Your task to perform on an android device: turn off priority inbox in the gmail app Image 0: 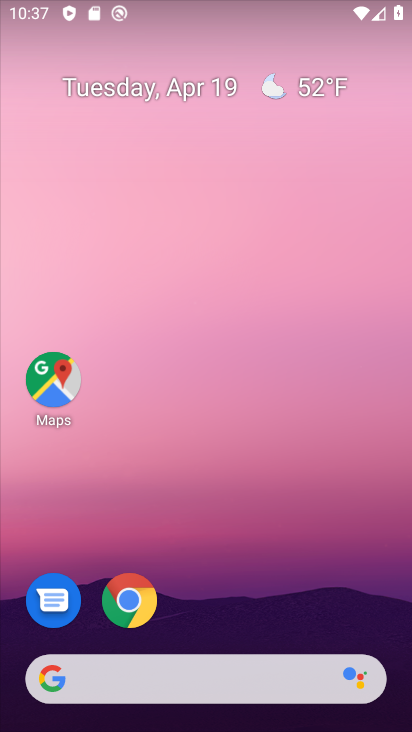
Step 0: click (145, 7)
Your task to perform on an android device: turn off priority inbox in the gmail app Image 1: 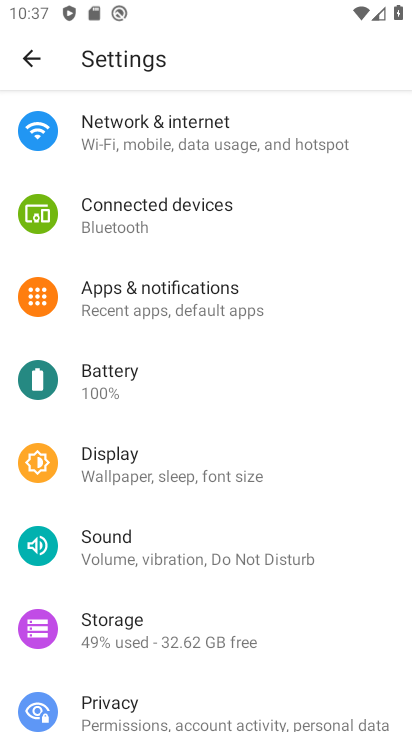
Step 1: press home button
Your task to perform on an android device: turn off priority inbox in the gmail app Image 2: 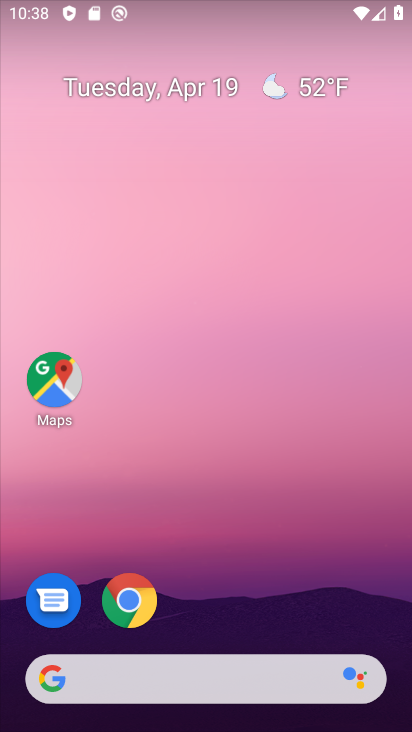
Step 2: drag from (224, 645) to (238, 18)
Your task to perform on an android device: turn off priority inbox in the gmail app Image 3: 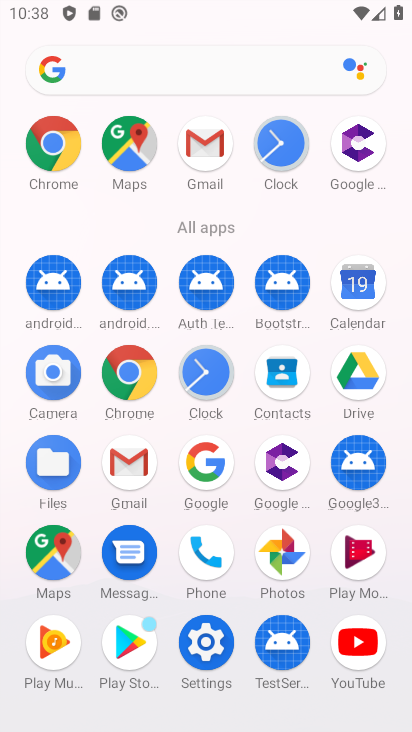
Step 3: click (131, 485)
Your task to perform on an android device: turn off priority inbox in the gmail app Image 4: 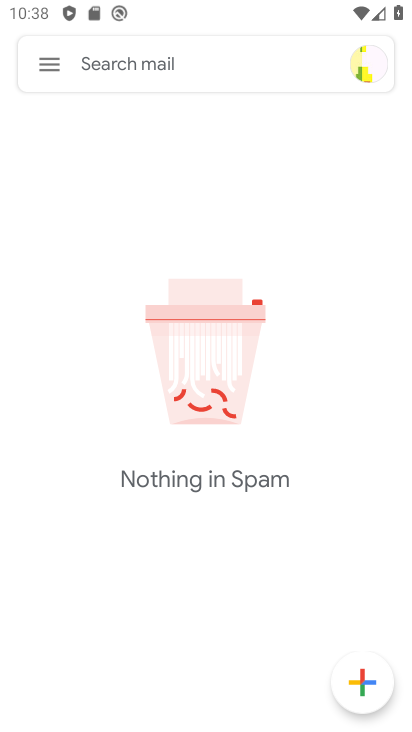
Step 4: click (40, 59)
Your task to perform on an android device: turn off priority inbox in the gmail app Image 5: 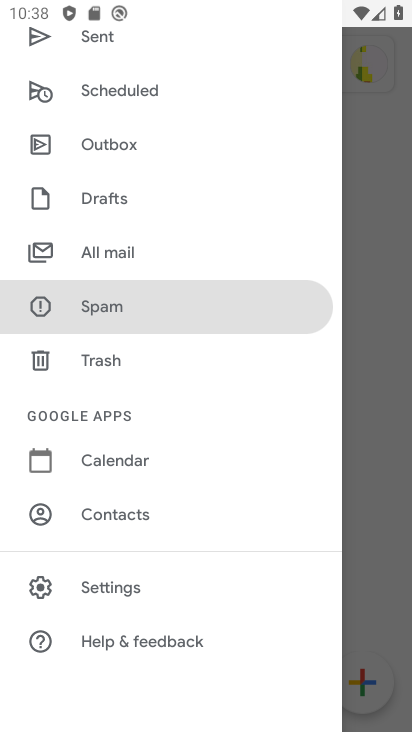
Step 5: click (70, 596)
Your task to perform on an android device: turn off priority inbox in the gmail app Image 6: 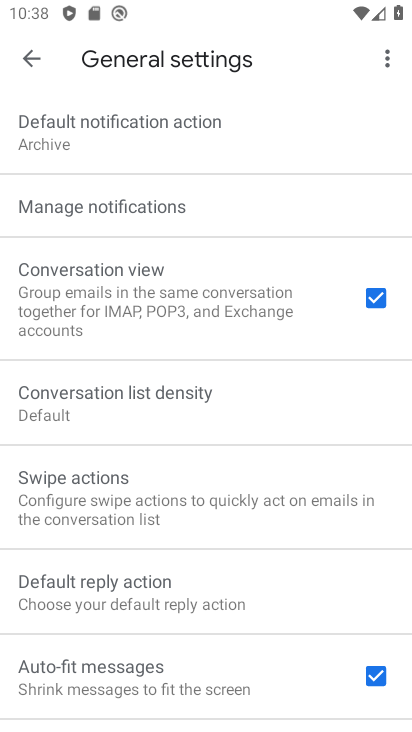
Step 6: click (40, 60)
Your task to perform on an android device: turn off priority inbox in the gmail app Image 7: 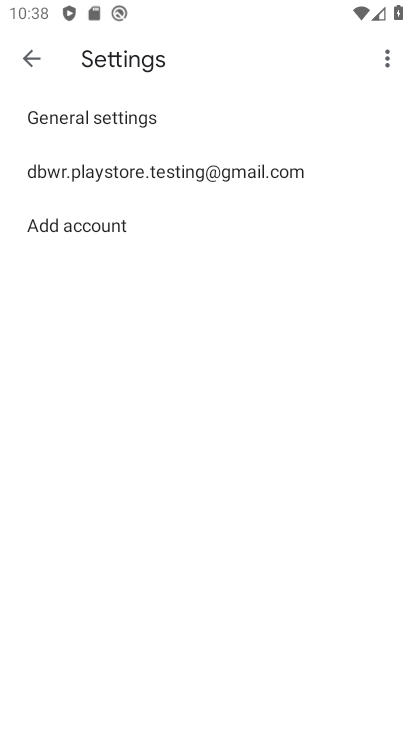
Step 7: click (45, 158)
Your task to perform on an android device: turn off priority inbox in the gmail app Image 8: 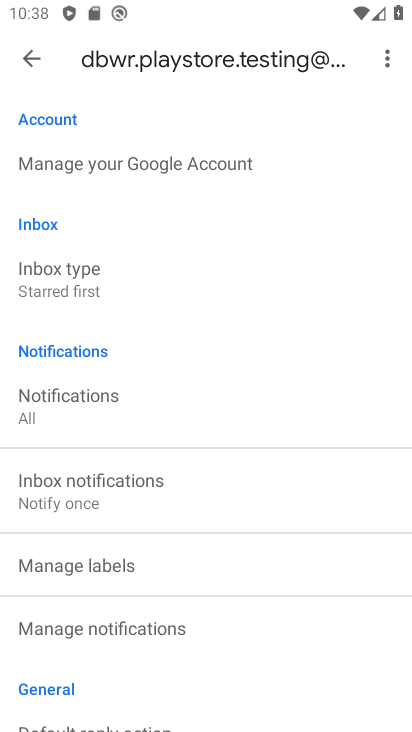
Step 8: click (91, 289)
Your task to perform on an android device: turn off priority inbox in the gmail app Image 9: 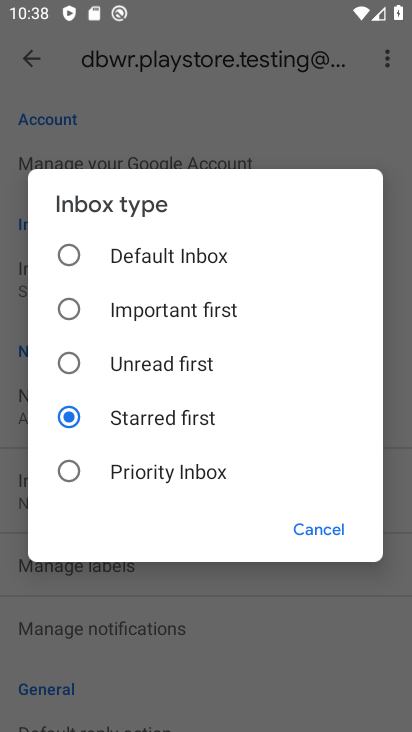
Step 9: task complete